Your task to perform on an android device: Open Google Maps Image 0: 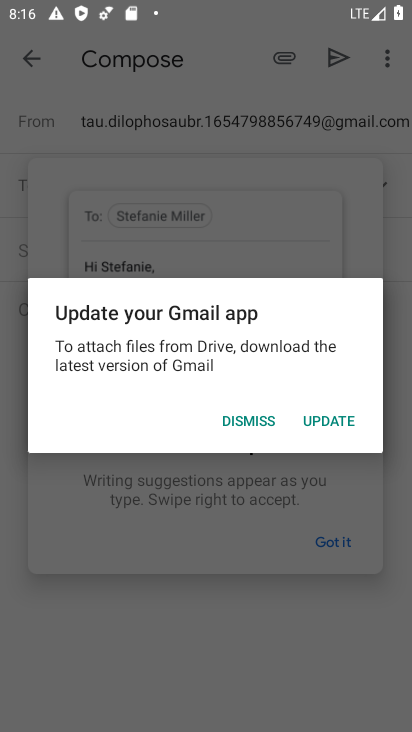
Step 0: press home button
Your task to perform on an android device: Open Google Maps Image 1: 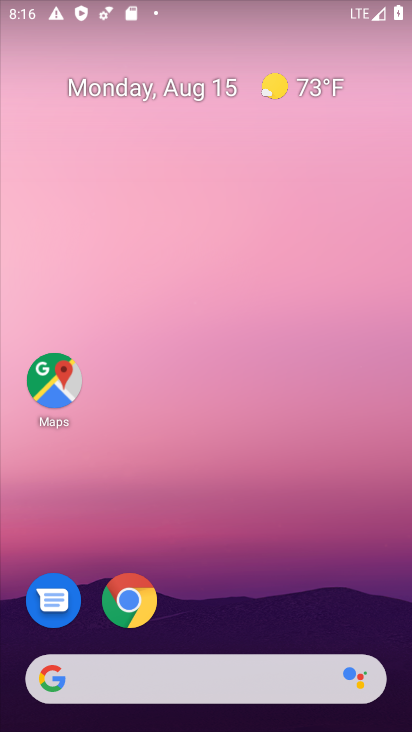
Step 1: drag from (228, 506) to (257, 88)
Your task to perform on an android device: Open Google Maps Image 2: 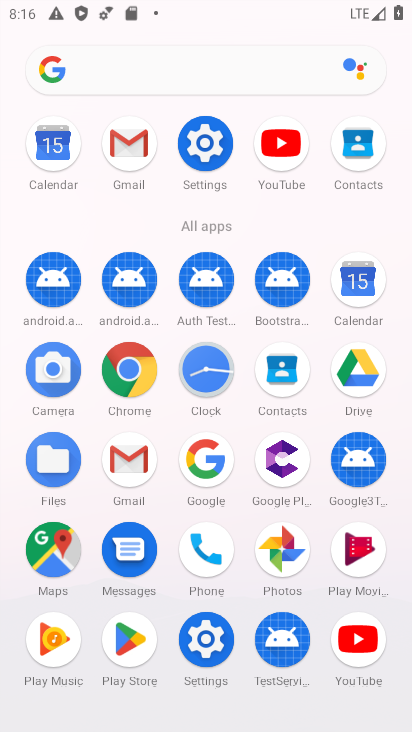
Step 2: click (59, 544)
Your task to perform on an android device: Open Google Maps Image 3: 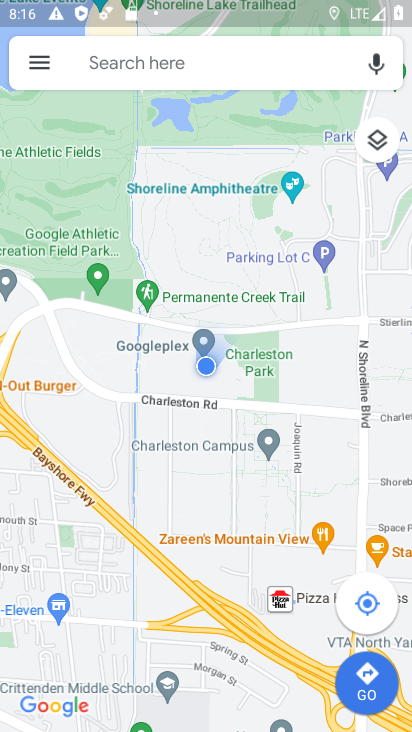
Step 3: task complete